Your task to perform on an android device: Go to network settings Image 0: 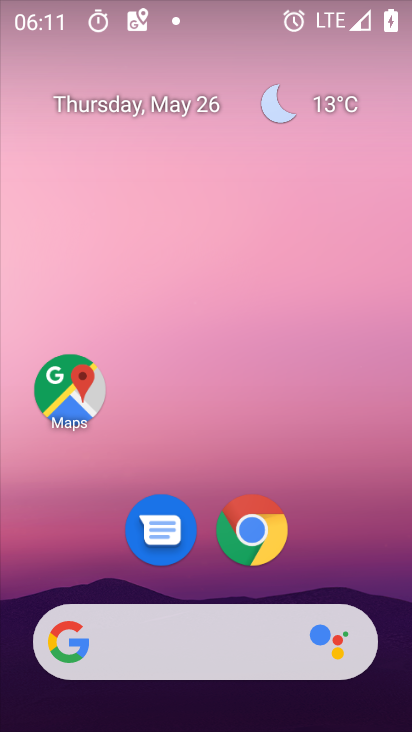
Step 0: drag from (148, 592) to (272, 4)
Your task to perform on an android device: Go to network settings Image 1: 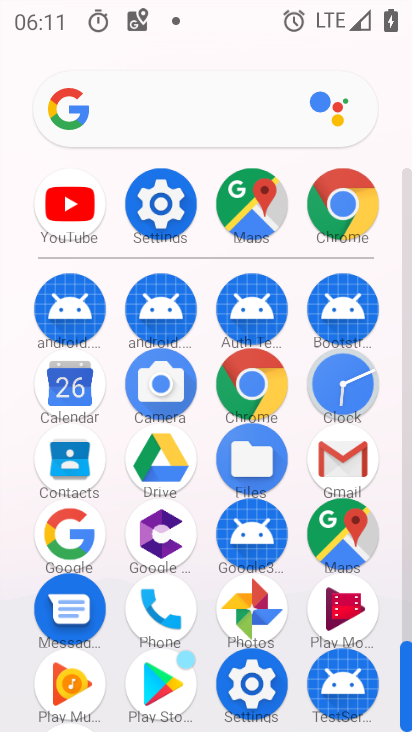
Step 1: click (168, 205)
Your task to perform on an android device: Go to network settings Image 2: 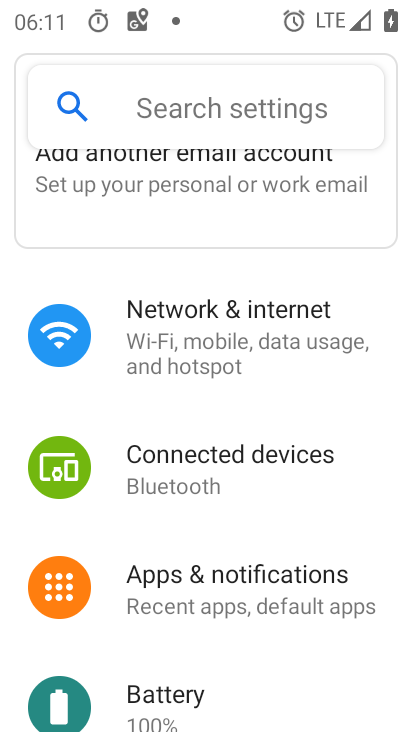
Step 2: click (292, 373)
Your task to perform on an android device: Go to network settings Image 3: 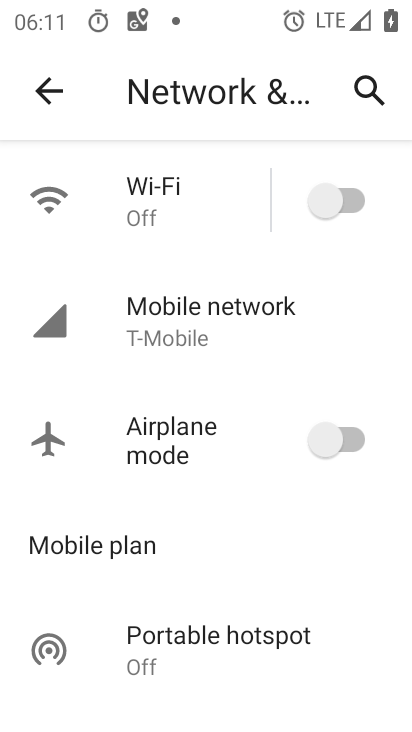
Step 3: task complete